Your task to perform on an android device: Set the phone to "Do not disturb". Image 0: 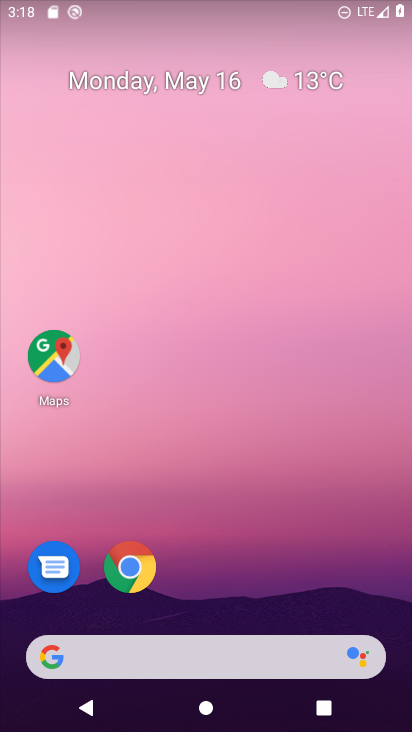
Step 0: drag from (338, 14) to (314, 513)
Your task to perform on an android device: Set the phone to "Do not disturb". Image 1: 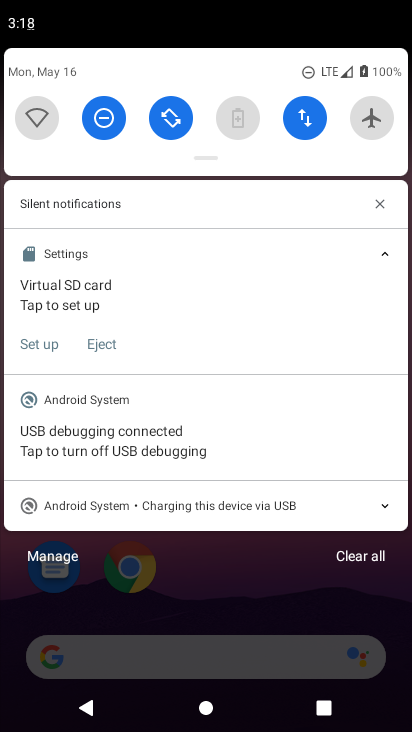
Step 1: task complete